Your task to perform on an android device: open the mobile data screen to see how much data has been used Image 0: 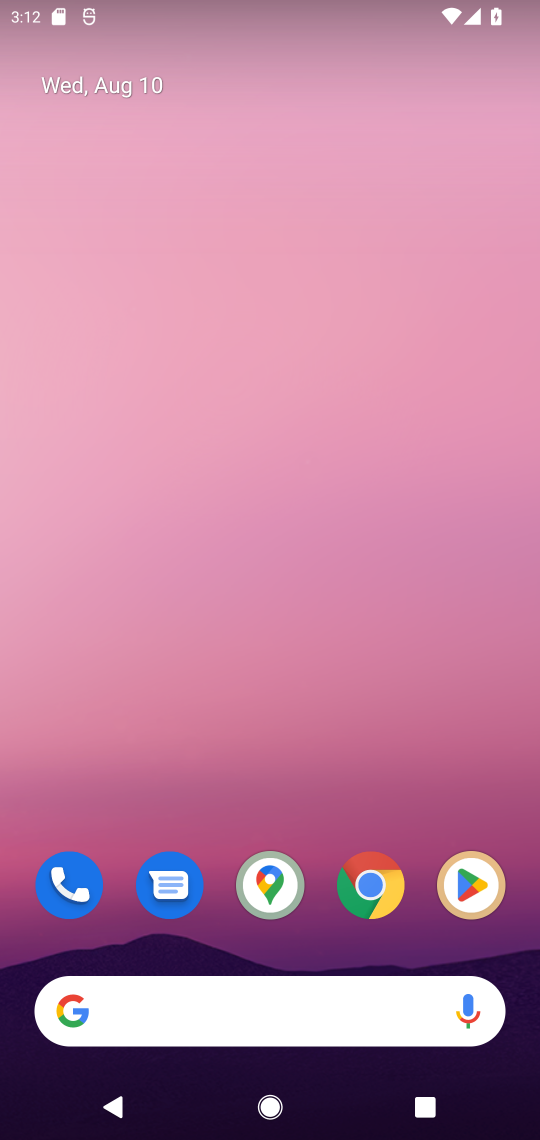
Step 0: drag from (317, 792) to (308, 35)
Your task to perform on an android device: open the mobile data screen to see how much data has been used Image 1: 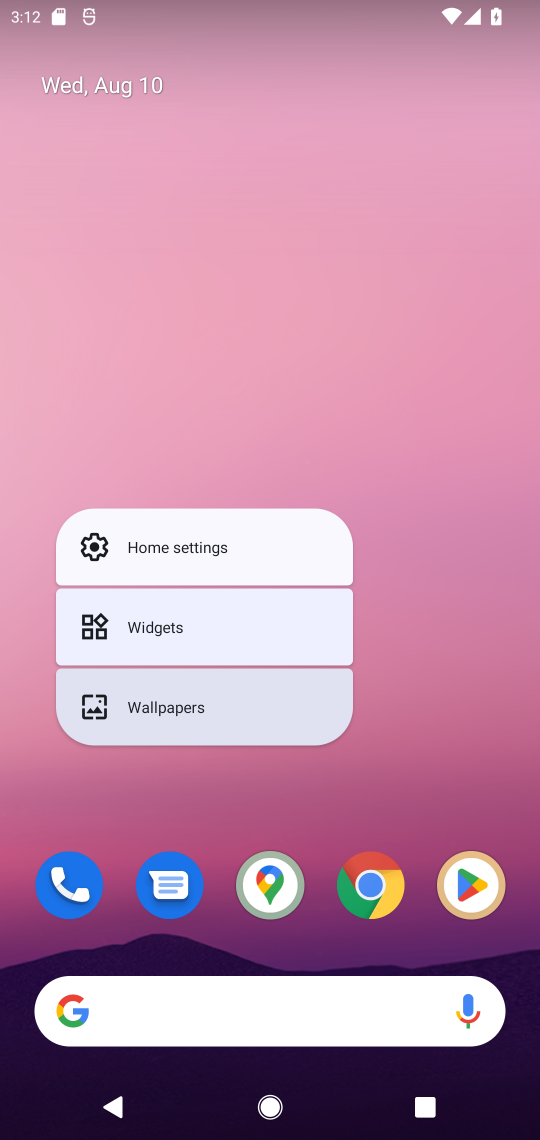
Step 1: click (390, 448)
Your task to perform on an android device: open the mobile data screen to see how much data has been used Image 2: 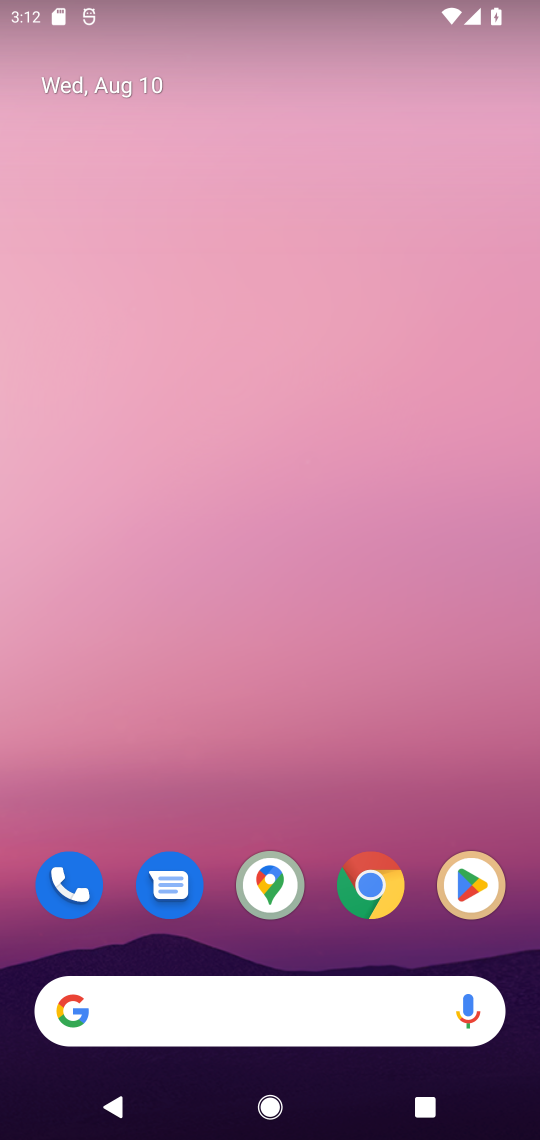
Step 2: drag from (315, 943) to (262, 270)
Your task to perform on an android device: open the mobile data screen to see how much data has been used Image 3: 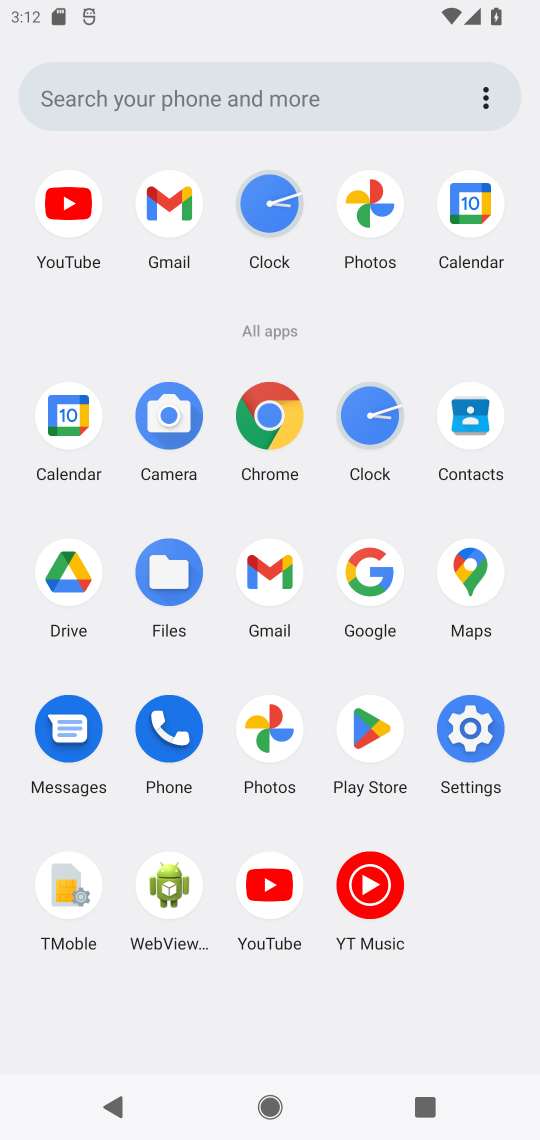
Step 3: click (474, 726)
Your task to perform on an android device: open the mobile data screen to see how much data has been used Image 4: 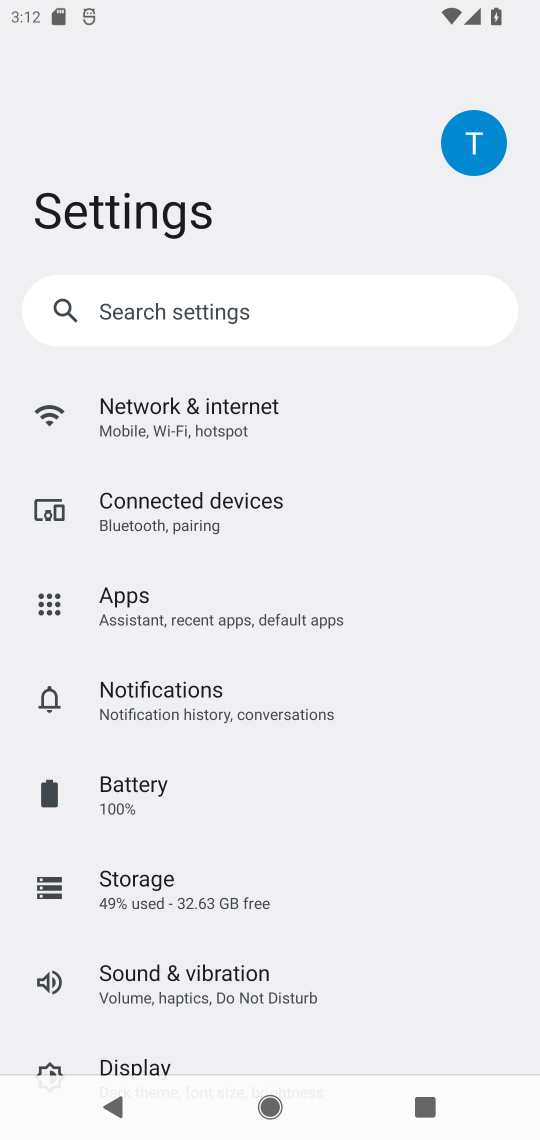
Step 4: click (200, 401)
Your task to perform on an android device: open the mobile data screen to see how much data has been used Image 5: 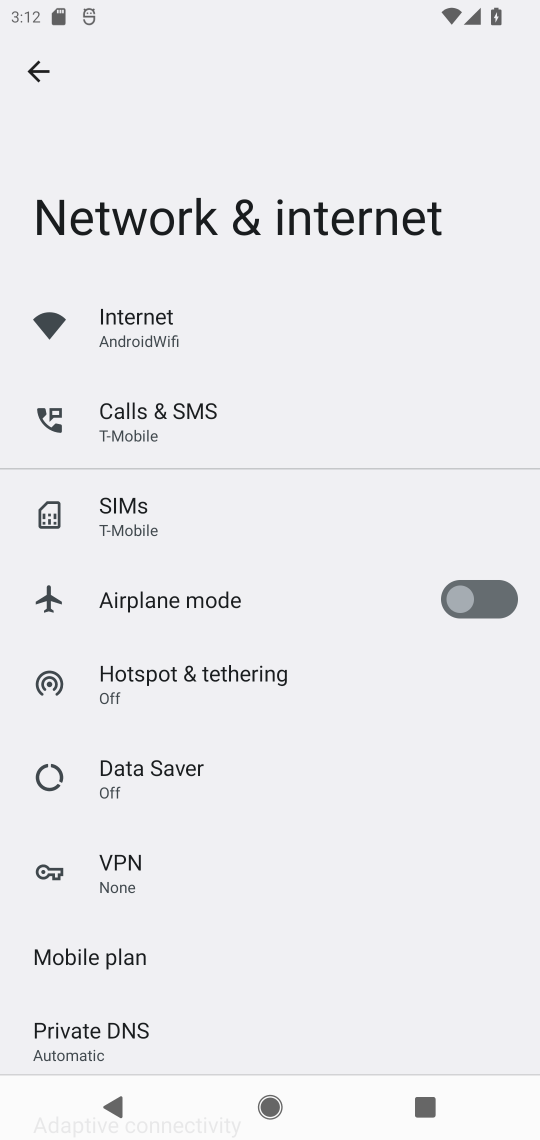
Step 5: click (138, 324)
Your task to perform on an android device: open the mobile data screen to see how much data has been used Image 6: 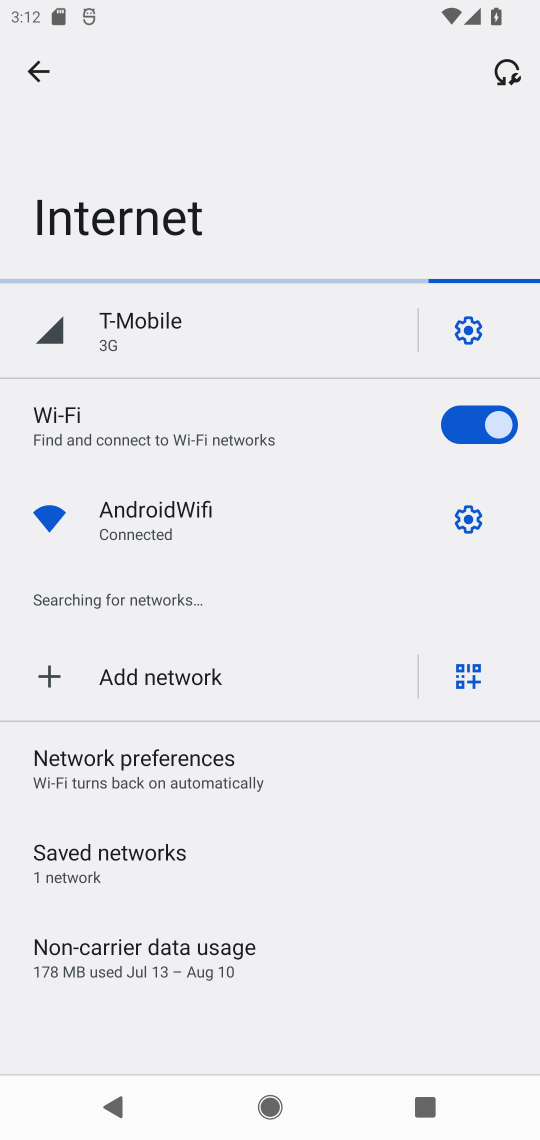
Step 6: click (132, 949)
Your task to perform on an android device: open the mobile data screen to see how much data has been used Image 7: 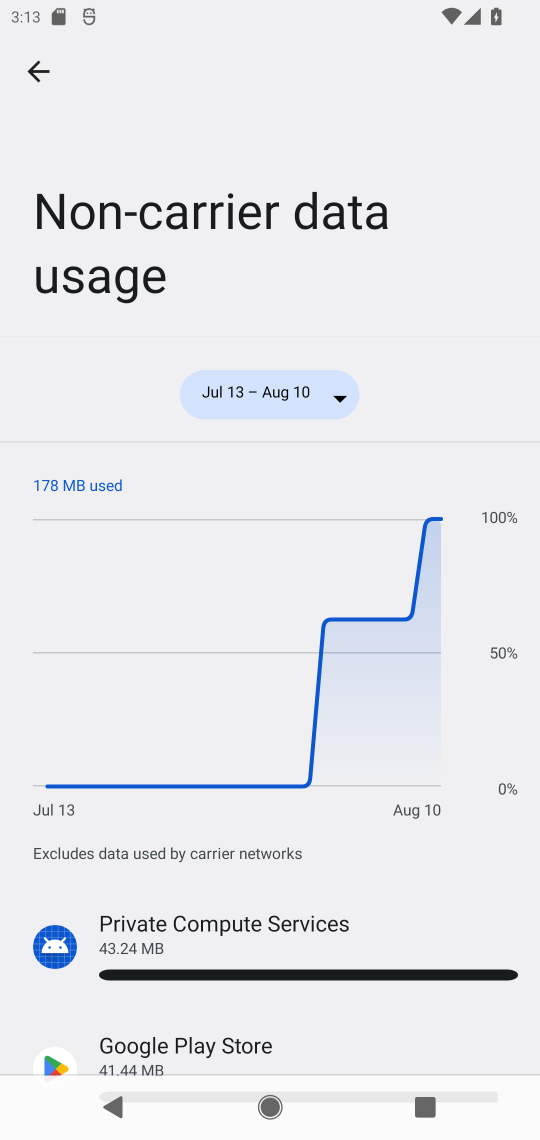
Step 7: task complete